Your task to perform on an android device: show emergency info Image 0: 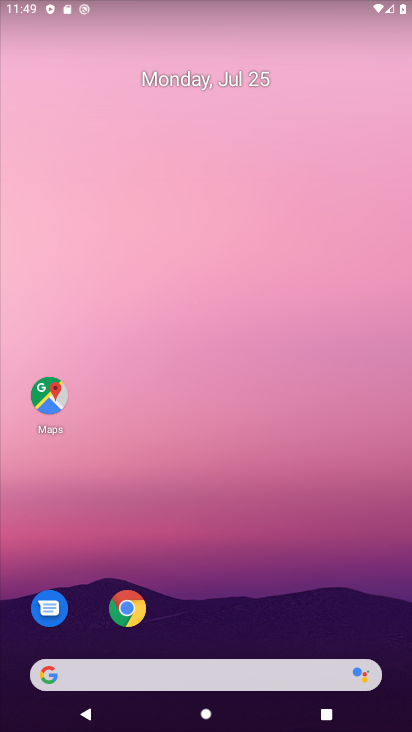
Step 0: drag from (284, 617) to (305, 155)
Your task to perform on an android device: show emergency info Image 1: 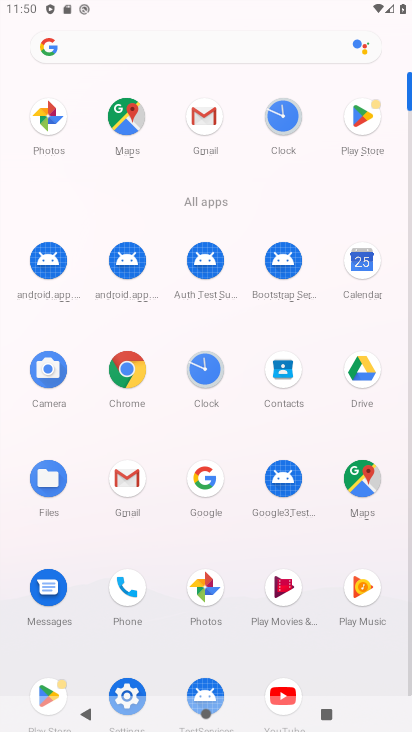
Step 1: click (121, 675)
Your task to perform on an android device: show emergency info Image 2: 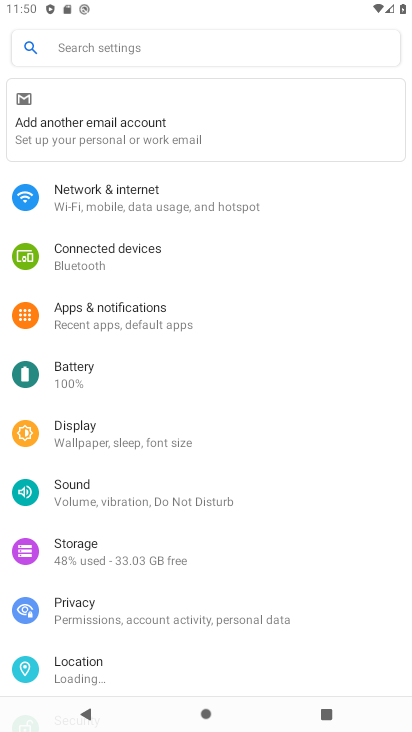
Step 2: drag from (190, 681) to (194, 91)
Your task to perform on an android device: show emergency info Image 3: 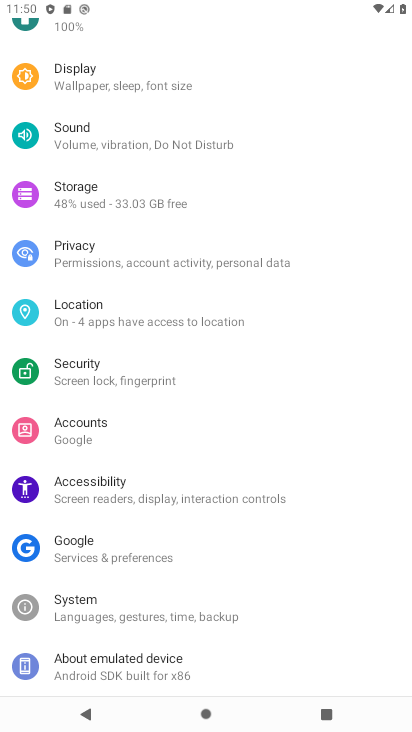
Step 3: click (157, 638)
Your task to perform on an android device: show emergency info Image 4: 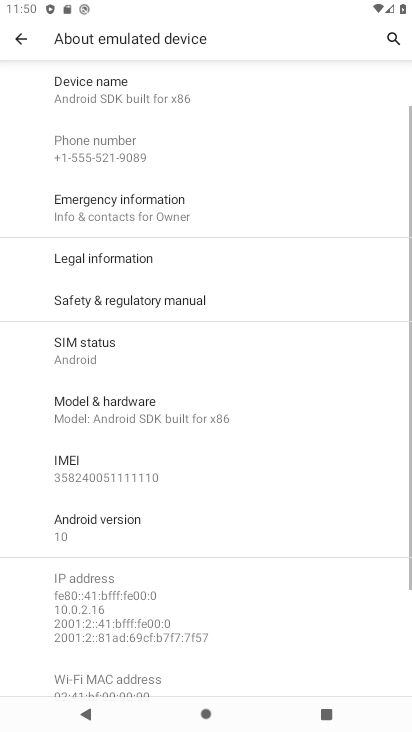
Step 4: click (160, 226)
Your task to perform on an android device: show emergency info Image 5: 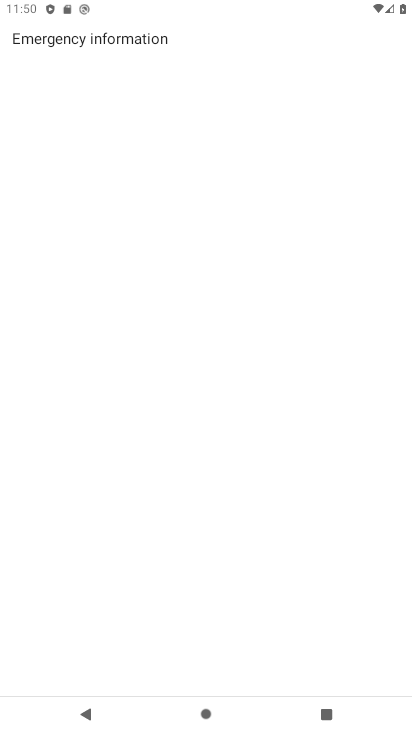
Step 5: task complete